Your task to perform on an android device: Open my contact list Image 0: 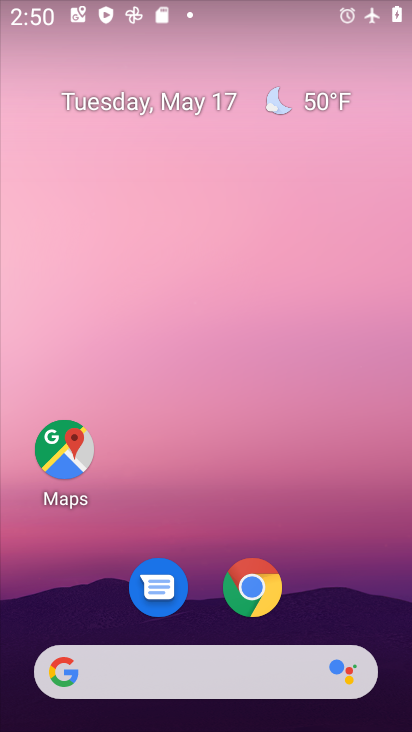
Step 0: drag from (336, 594) to (314, 66)
Your task to perform on an android device: Open my contact list Image 1: 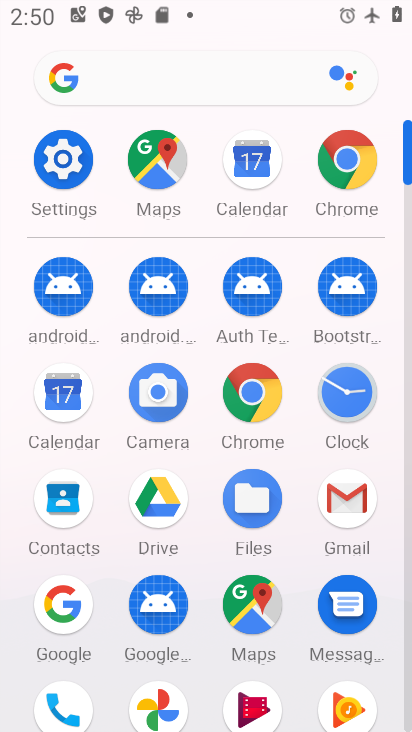
Step 1: click (28, 506)
Your task to perform on an android device: Open my contact list Image 2: 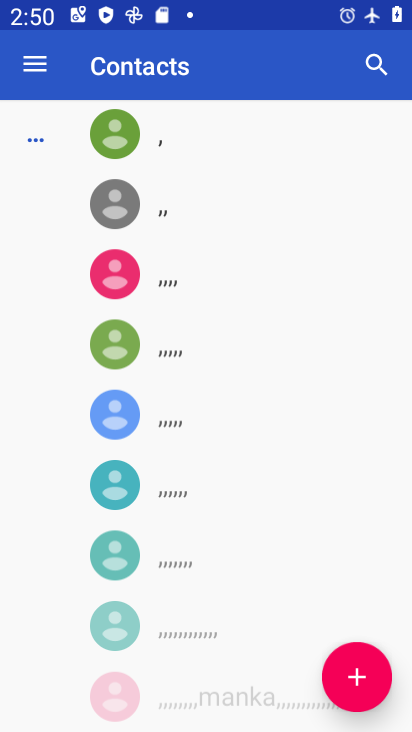
Step 2: task complete